Your task to perform on an android device: stop showing notifications on the lock screen Image 0: 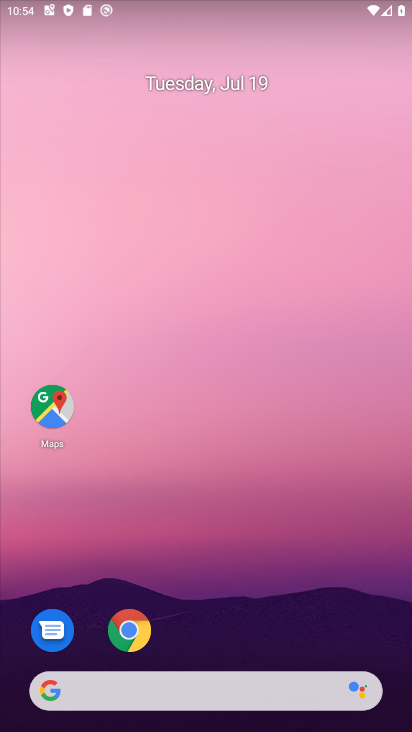
Step 0: drag from (212, 679) to (224, 170)
Your task to perform on an android device: stop showing notifications on the lock screen Image 1: 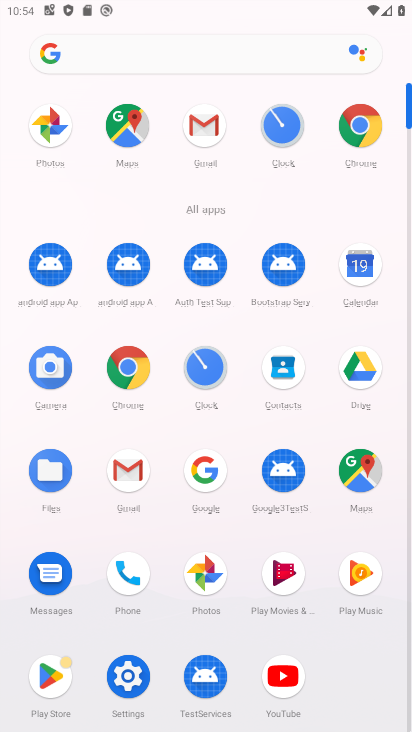
Step 1: click (124, 675)
Your task to perform on an android device: stop showing notifications on the lock screen Image 2: 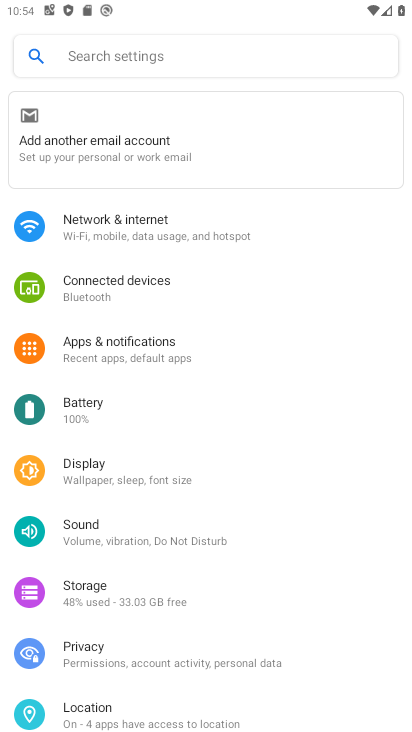
Step 2: click (163, 354)
Your task to perform on an android device: stop showing notifications on the lock screen Image 3: 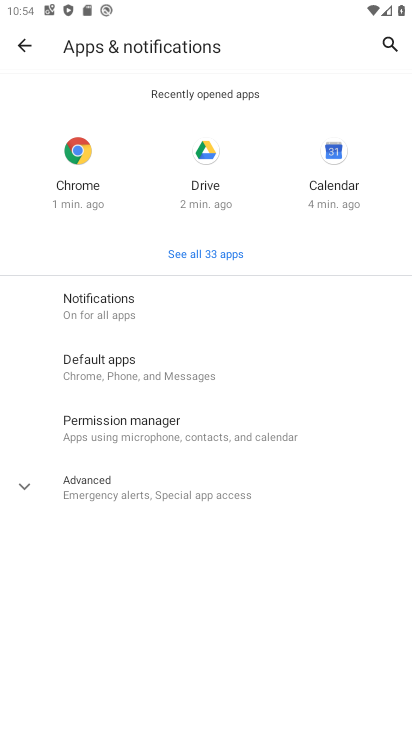
Step 3: click (127, 312)
Your task to perform on an android device: stop showing notifications on the lock screen Image 4: 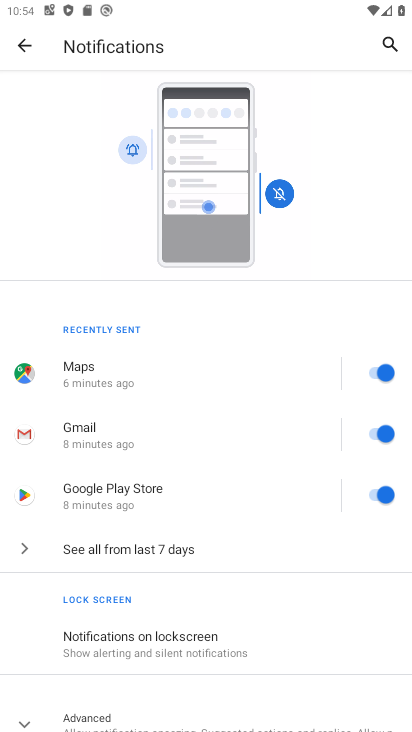
Step 4: click (166, 633)
Your task to perform on an android device: stop showing notifications on the lock screen Image 5: 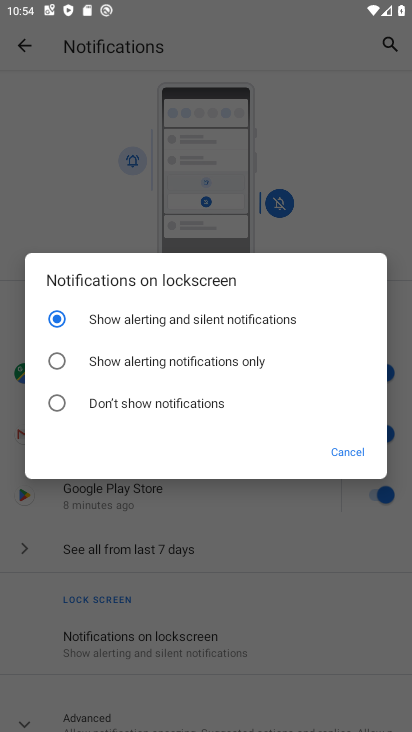
Step 5: click (233, 312)
Your task to perform on an android device: stop showing notifications on the lock screen Image 6: 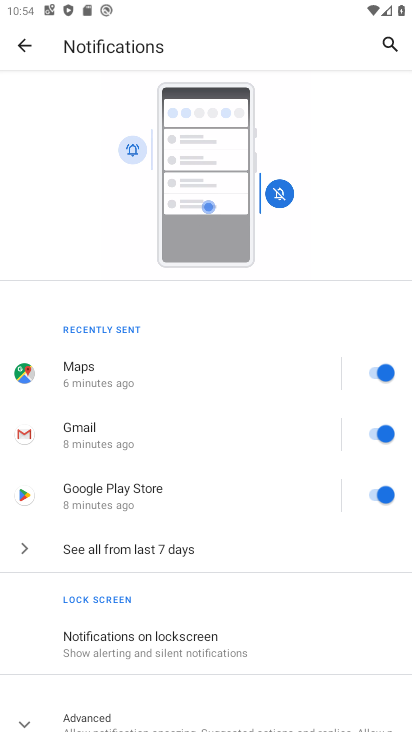
Step 6: task complete